Your task to perform on an android device: Clear the shopping cart on bestbuy.com. Search for macbook pro on bestbuy.com, select the first entry, add it to the cart, then select checkout. Image 0: 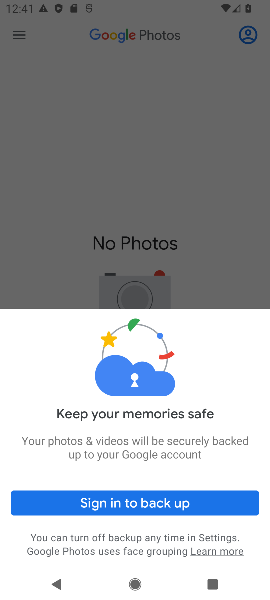
Step 0: press home button
Your task to perform on an android device: Clear the shopping cart on bestbuy.com. Search for macbook pro on bestbuy.com, select the first entry, add it to the cart, then select checkout. Image 1: 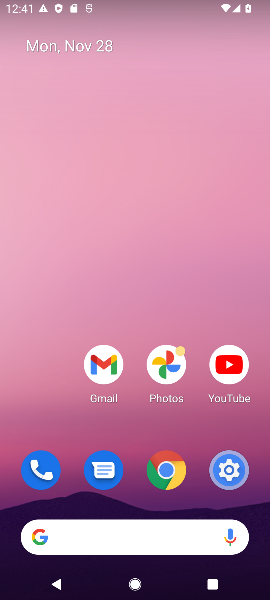
Step 1: click (138, 540)
Your task to perform on an android device: Clear the shopping cart on bestbuy.com. Search for macbook pro on bestbuy.com, select the first entry, add it to the cart, then select checkout. Image 2: 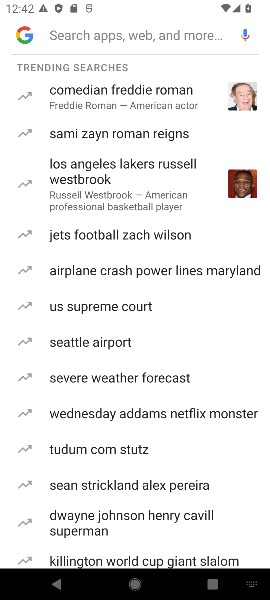
Step 2: task complete